Your task to perform on an android device: Add razer huntsman to the cart on bestbuy, then select checkout. Image 0: 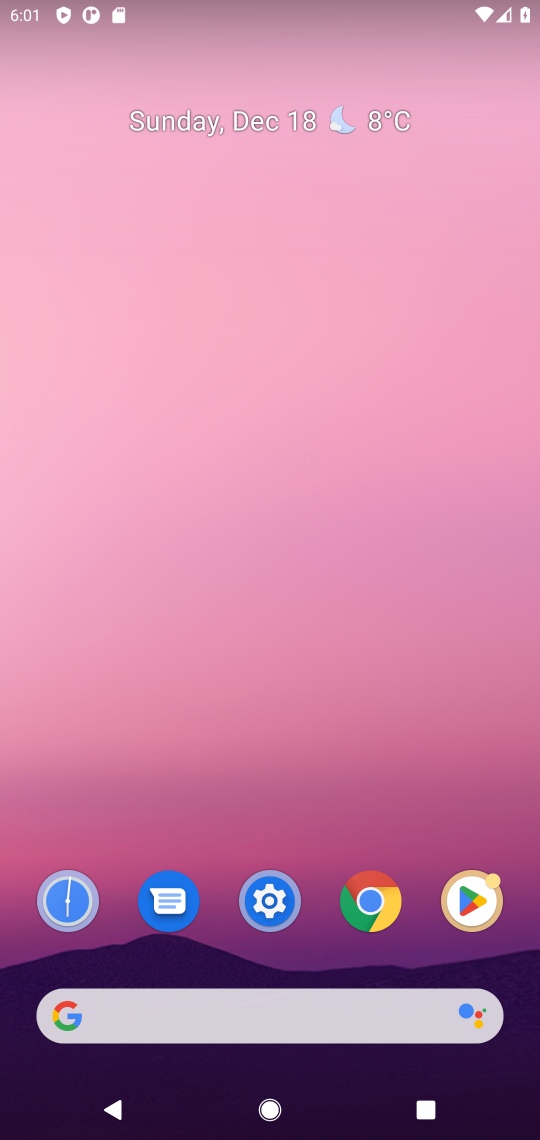
Step 0: click (366, 916)
Your task to perform on an android device: Add razer huntsman to the cart on bestbuy, then select checkout. Image 1: 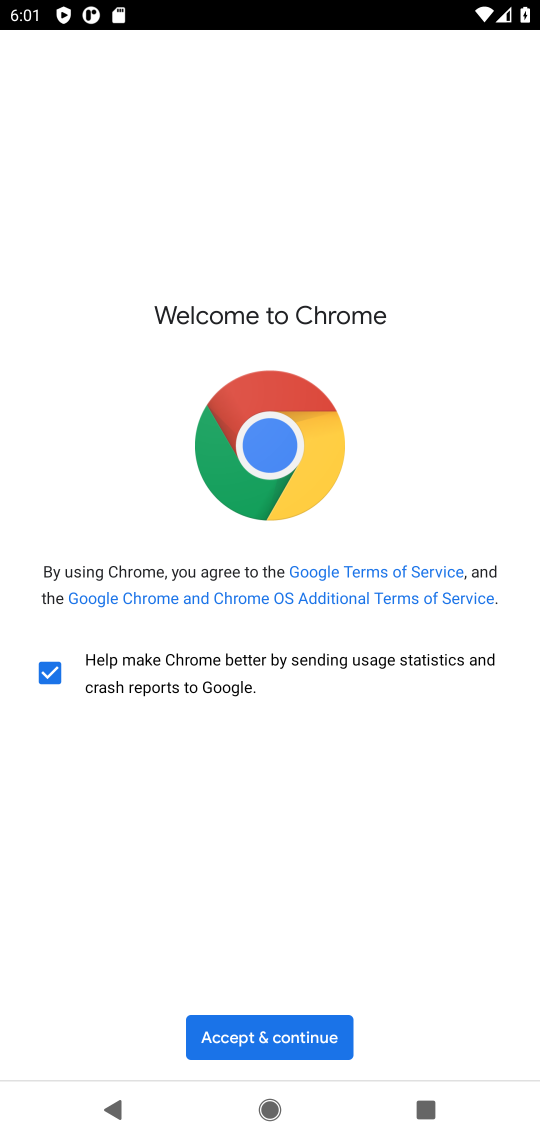
Step 1: click (308, 1016)
Your task to perform on an android device: Add razer huntsman to the cart on bestbuy, then select checkout. Image 2: 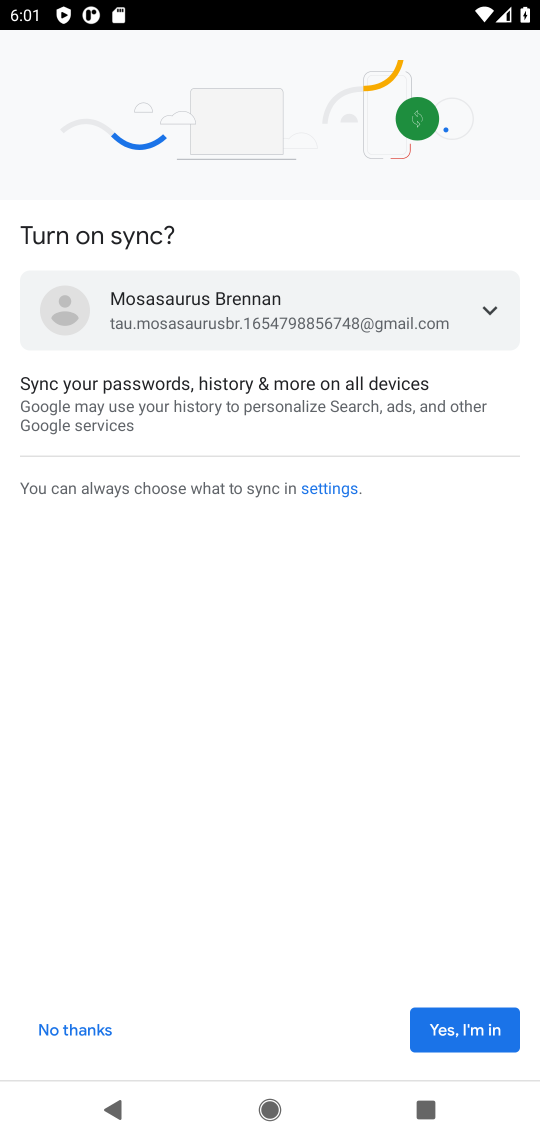
Step 2: click (450, 1005)
Your task to perform on an android device: Add razer huntsman to the cart on bestbuy, then select checkout. Image 3: 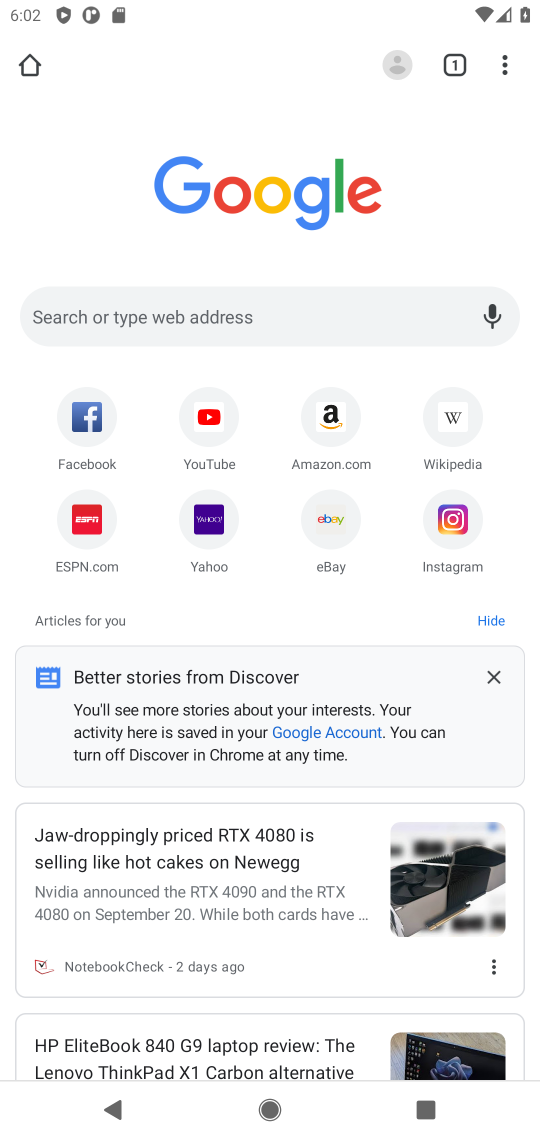
Step 3: click (244, 301)
Your task to perform on an android device: Add razer huntsman to the cart on bestbuy, then select checkout. Image 4: 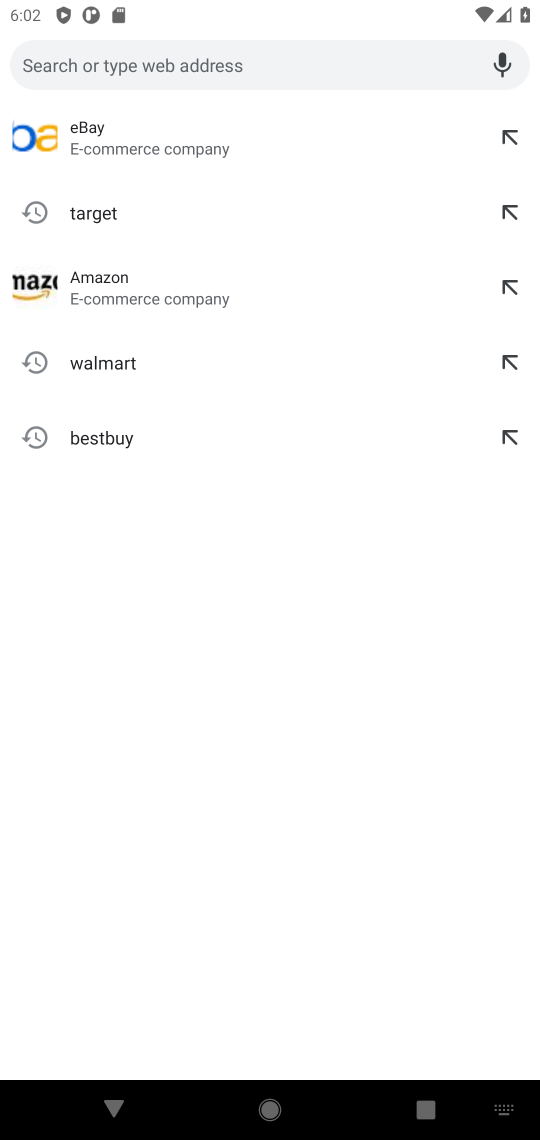
Step 4: type "bestbuy"
Your task to perform on an android device: Add razer huntsman to the cart on bestbuy, then select checkout. Image 5: 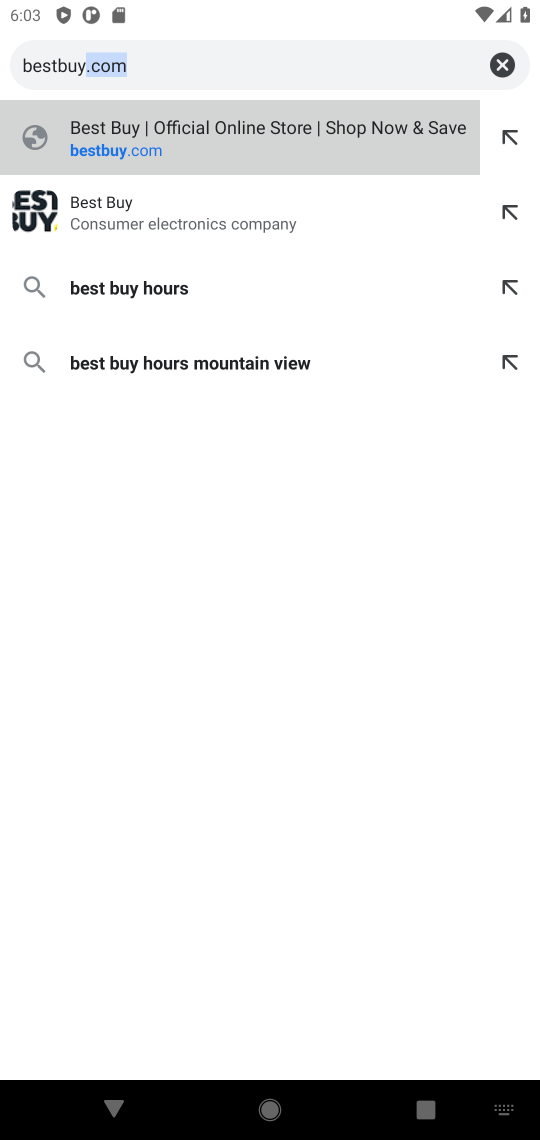
Step 5: click (257, 122)
Your task to perform on an android device: Add razer huntsman to the cart on bestbuy, then select checkout. Image 6: 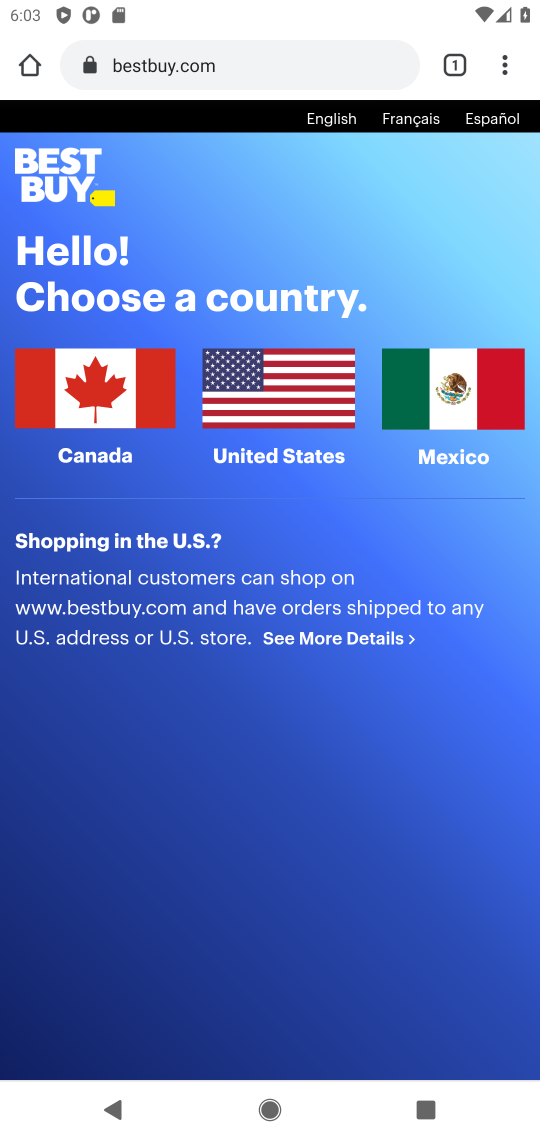
Step 6: click (151, 426)
Your task to perform on an android device: Add razer huntsman to the cart on bestbuy, then select checkout. Image 7: 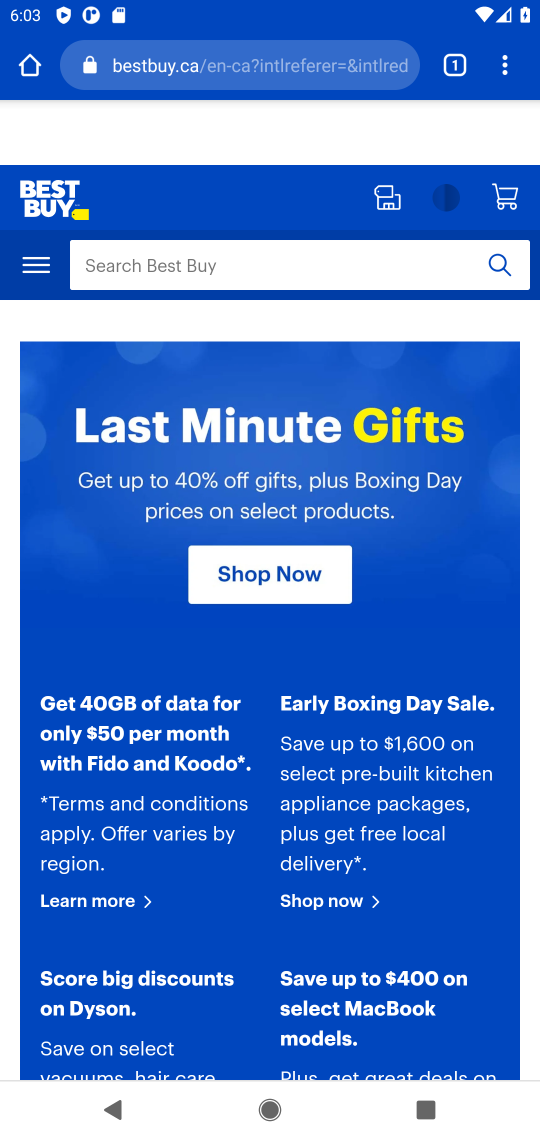
Step 7: click (152, 273)
Your task to perform on an android device: Add razer huntsman to the cart on bestbuy, then select checkout. Image 8: 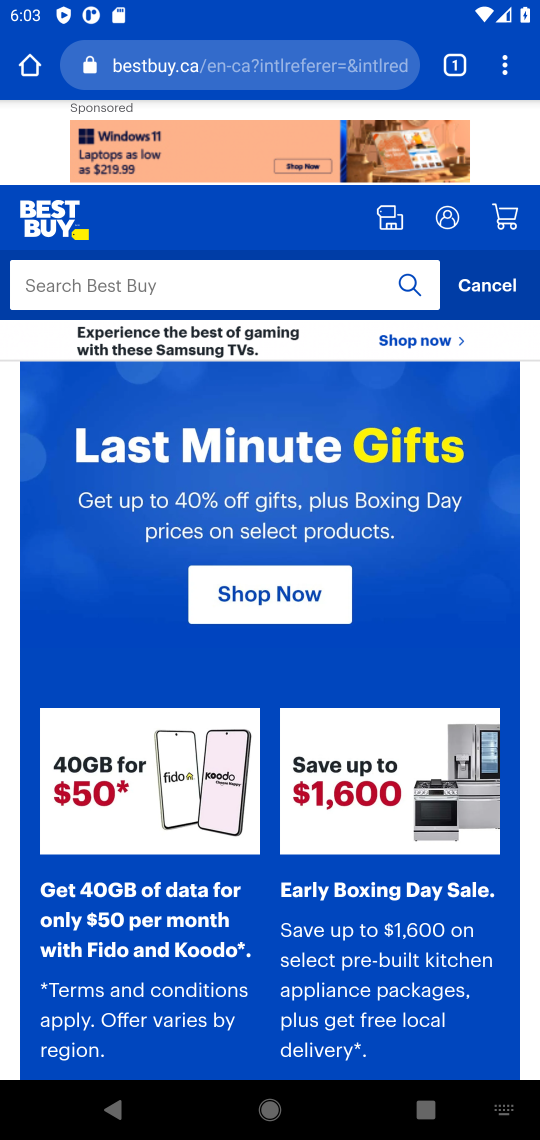
Step 8: type "razer huntsman"
Your task to perform on an android device: Add razer huntsman to the cart on bestbuy, then select checkout. Image 9: 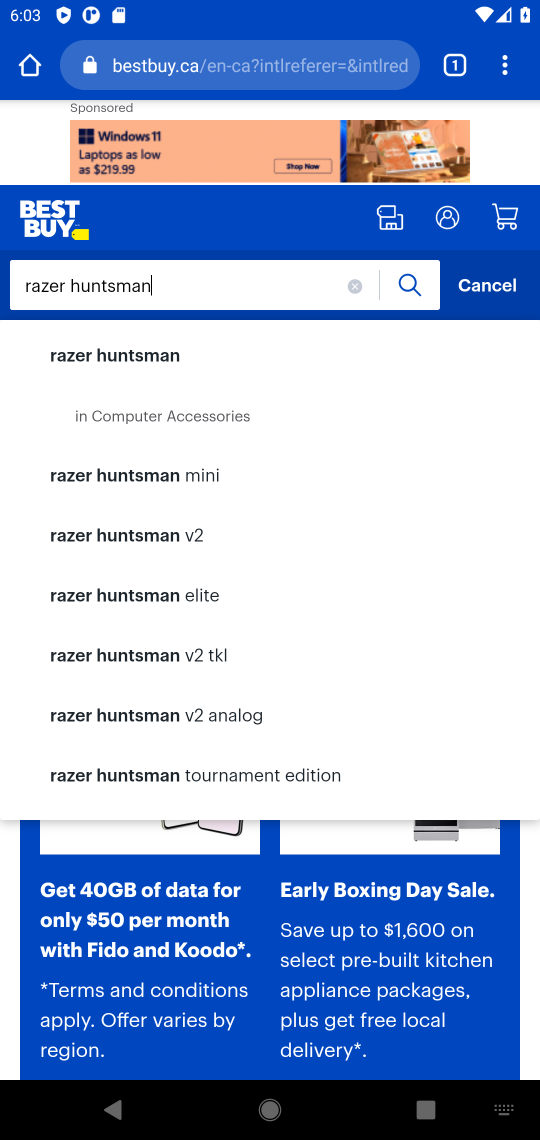
Step 9: click (119, 361)
Your task to perform on an android device: Add razer huntsman to the cart on bestbuy, then select checkout. Image 10: 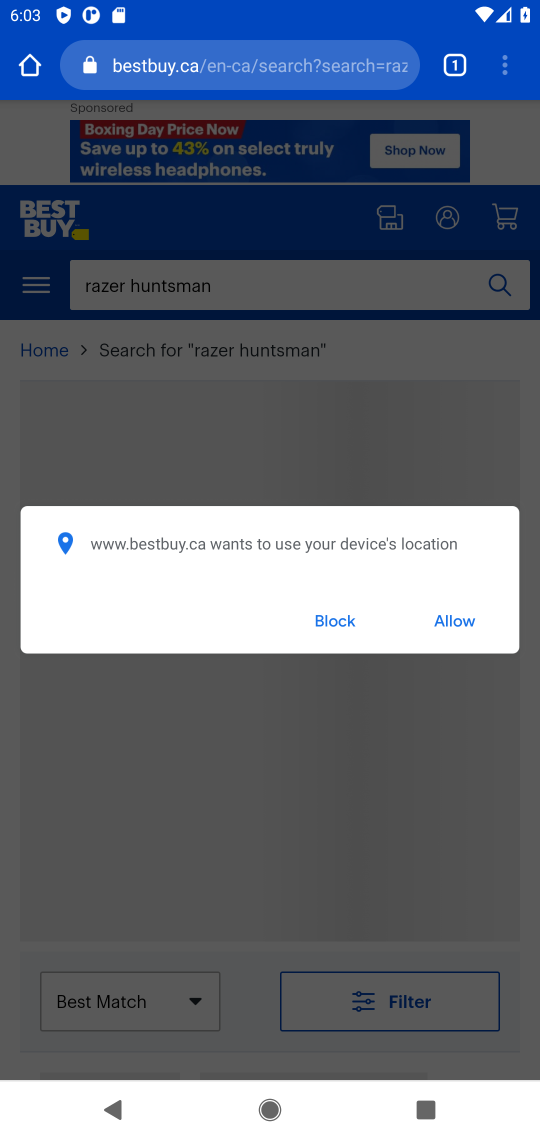
Step 10: click (469, 625)
Your task to perform on an android device: Add razer huntsman to the cart on bestbuy, then select checkout. Image 11: 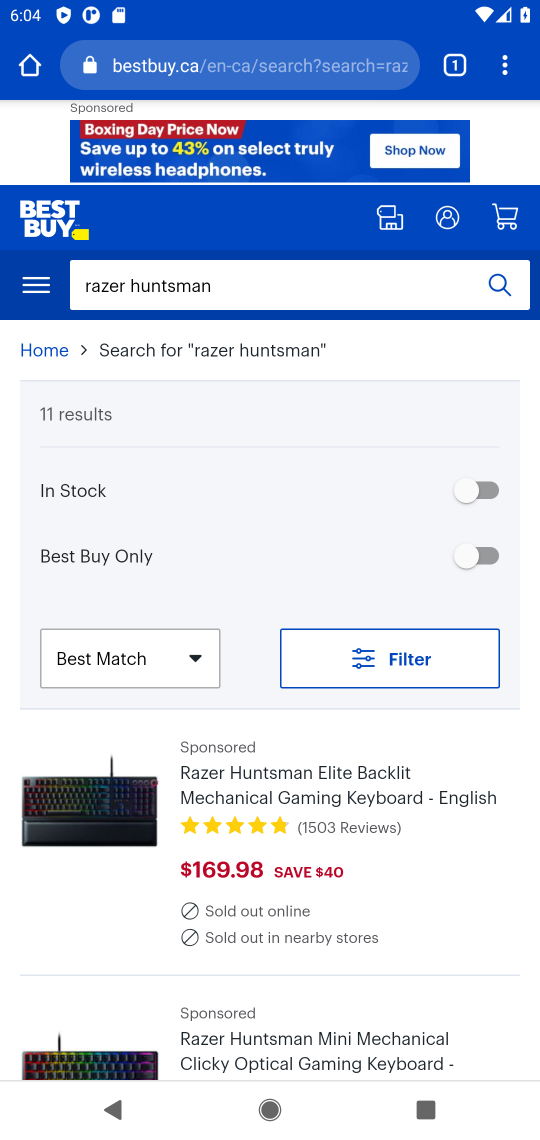
Step 11: click (280, 843)
Your task to perform on an android device: Add razer huntsman to the cart on bestbuy, then select checkout. Image 12: 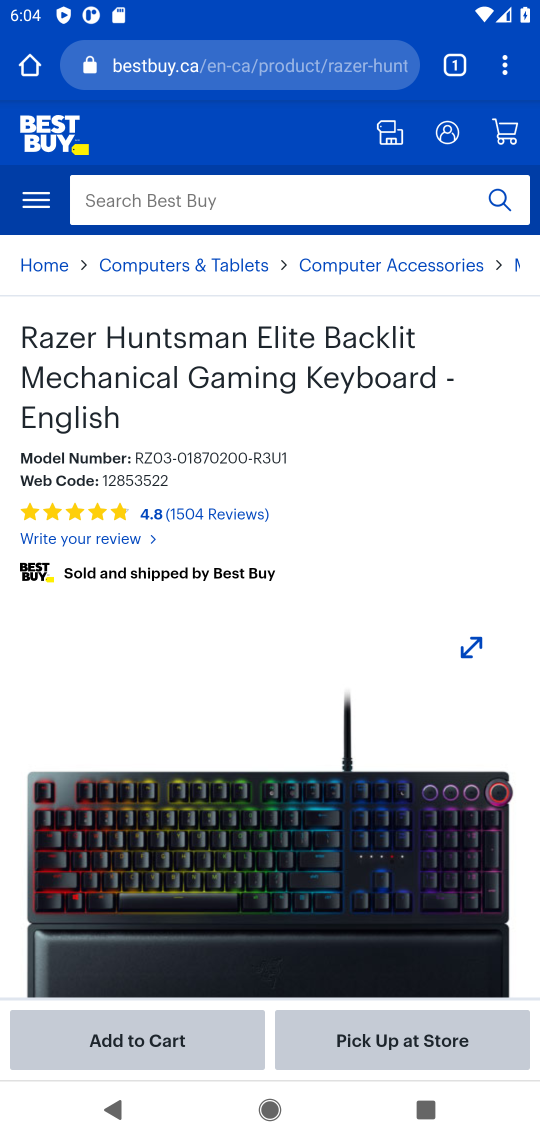
Step 12: click (173, 1034)
Your task to perform on an android device: Add razer huntsman to the cart on bestbuy, then select checkout. Image 13: 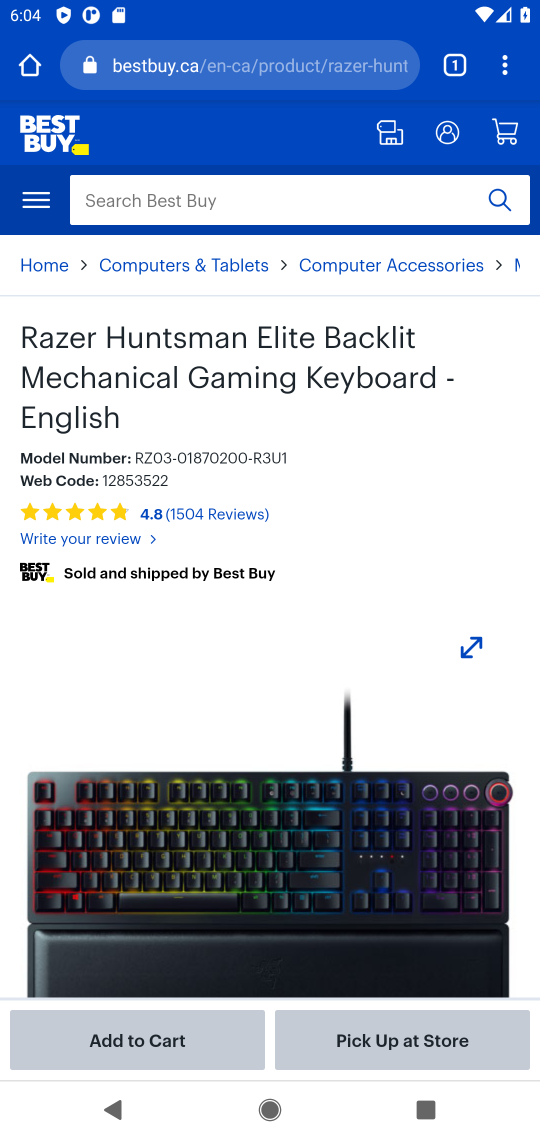
Step 13: click (89, 1049)
Your task to perform on an android device: Add razer huntsman to the cart on bestbuy, then select checkout. Image 14: 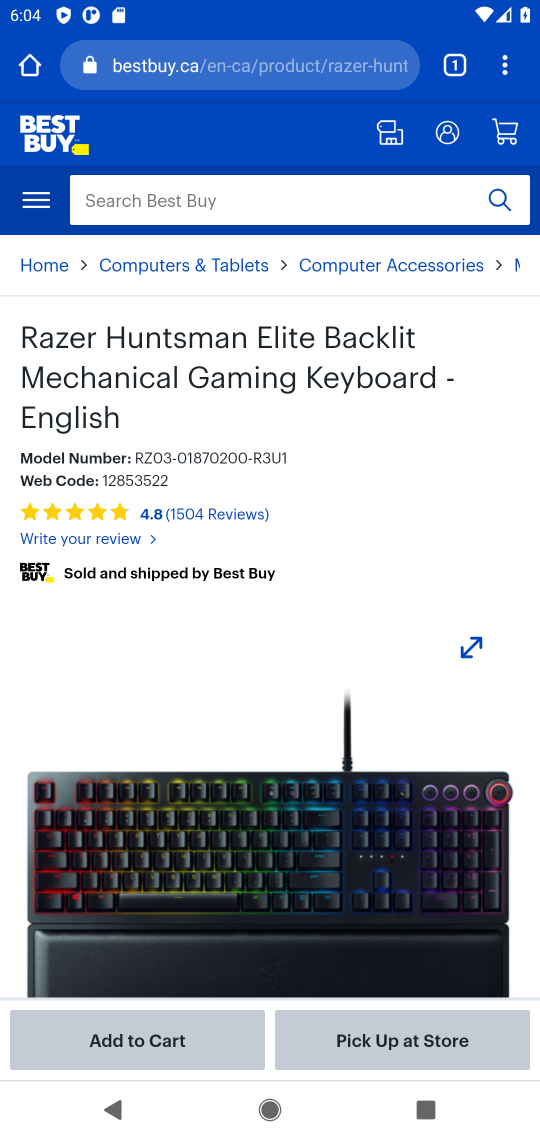
Step 14: task complete